Your task to perform on an android device: Go to battery settings Image 0: 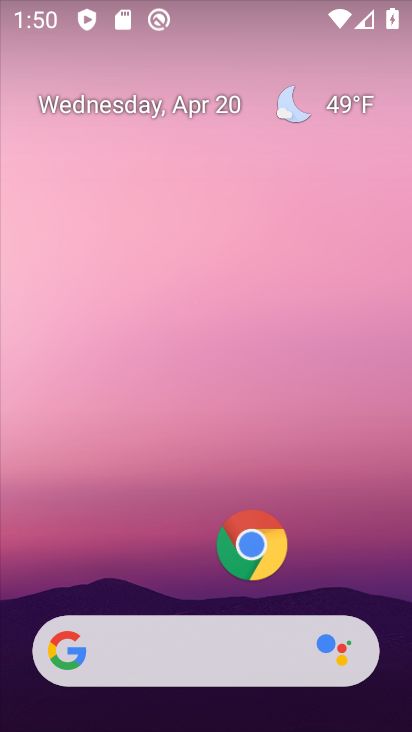
Step 0: press home button
Your task to perform on an android device: Go to battery settings Image 1: 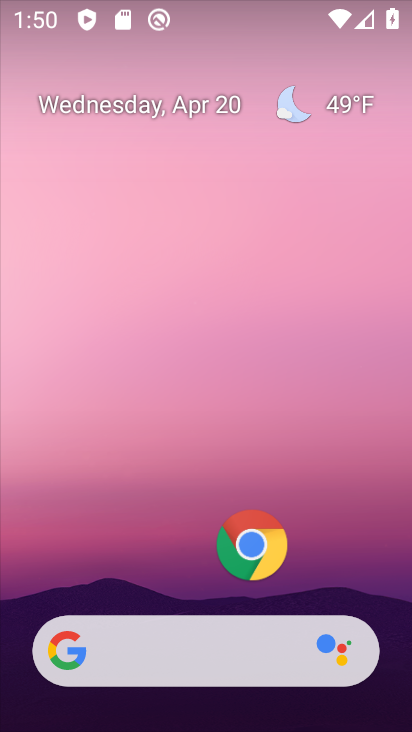
Step 1: drag from (179, 581) to (254, 61)
Your task to perform on an android device: Go to battery settings Image 2: 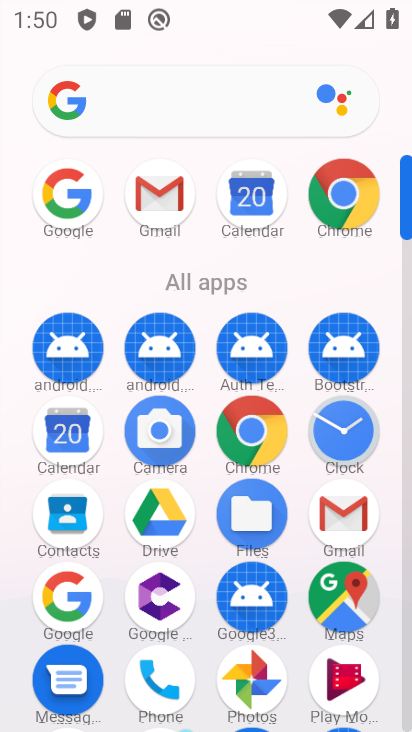
Step 2: drag from (205, 556) to (227, 288)
Your task to perform on an android device: Go to battery settings Image 3: 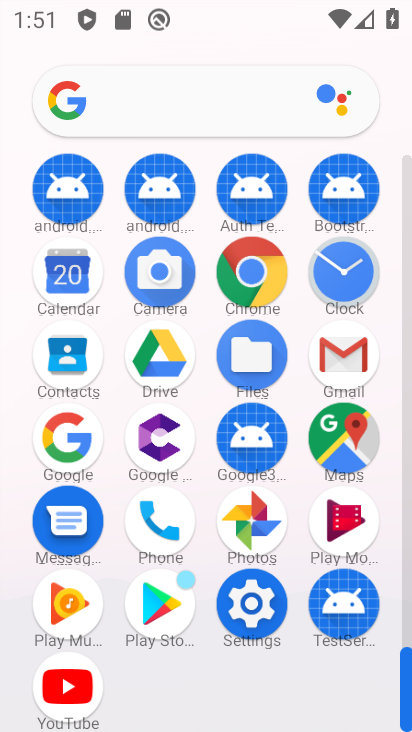
Step 3: click (252, 604)
Your task to perform on an android device: Go to battery settings Image 4: 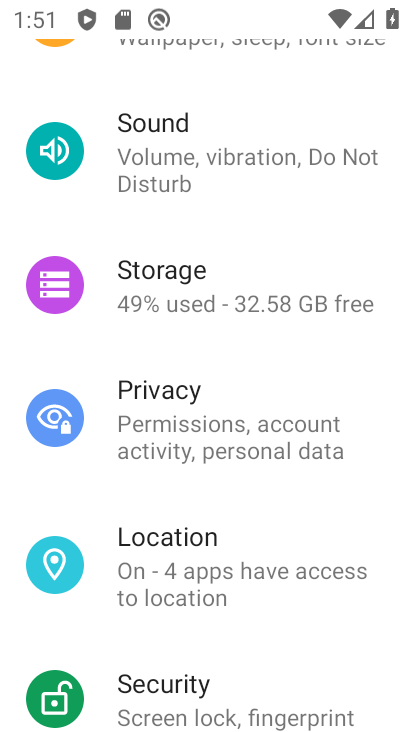
Step 4: drag from (238, 371) to (244, 453)
Your task to perform on an android device: Go to battery settings Image 5: 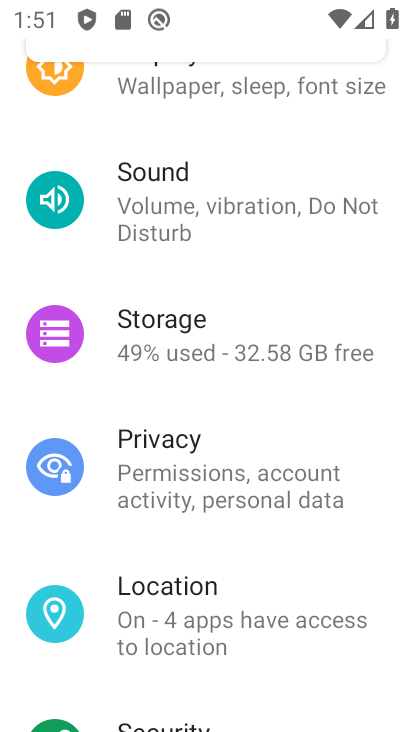
Step 5: drag from (250, 277) to (255, 396)
Your task to perform on an android device: Go to battery settings Image 6: 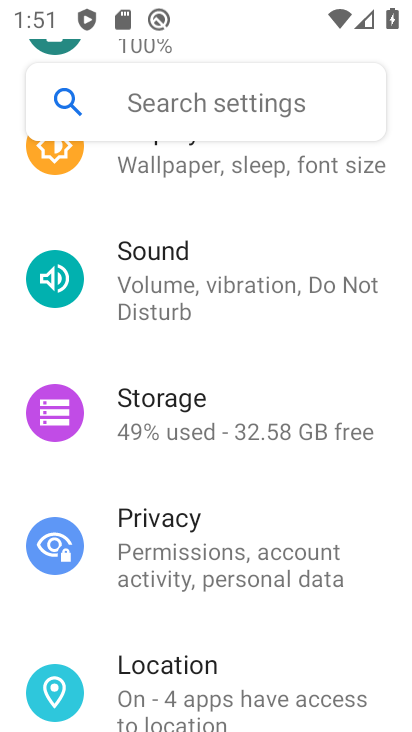
Step 6: drag from (241, 238) to (227, 435)
Your task to perform on an android device: Go to battery settings Image 7: 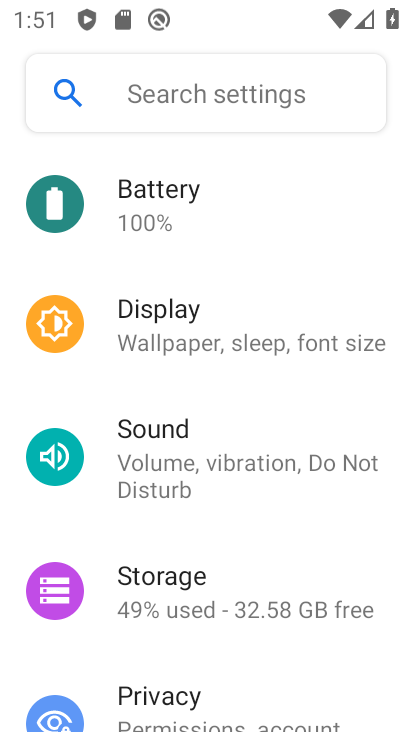
Step 7: click (173, 193)
Your task to perform on an android device: Go to battery settings Image 8: 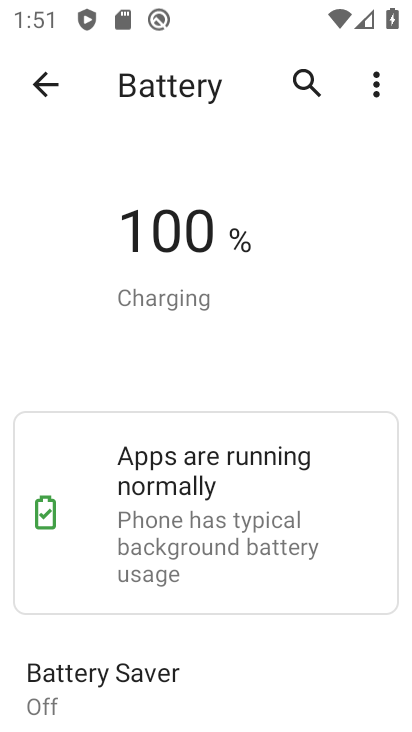
Step 8: task complete